Your task to perform on an android device: Open settings on Google Maps Image 0: 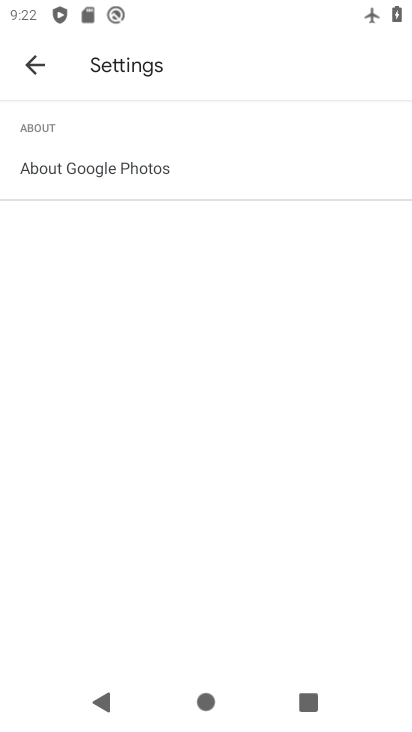
Step 0: press home button
Your task to perform on an android device: Open settings on Google Maps Image 1: 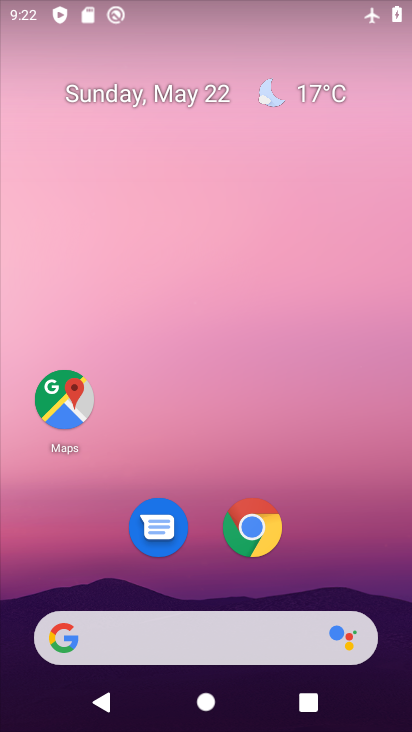
Step 1: click (58, 403)
Your task to perform on an android device: Open settings on Google Maps Image 2: 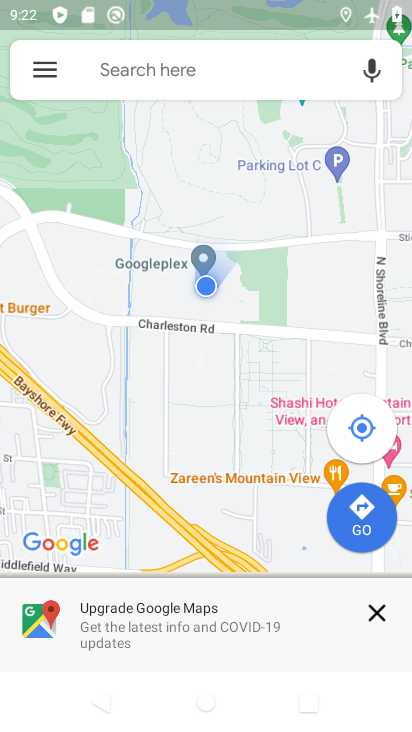
Step 2: click (45, 64)
Your task to perform on an android device: Open settings on Google Maps Image 3: 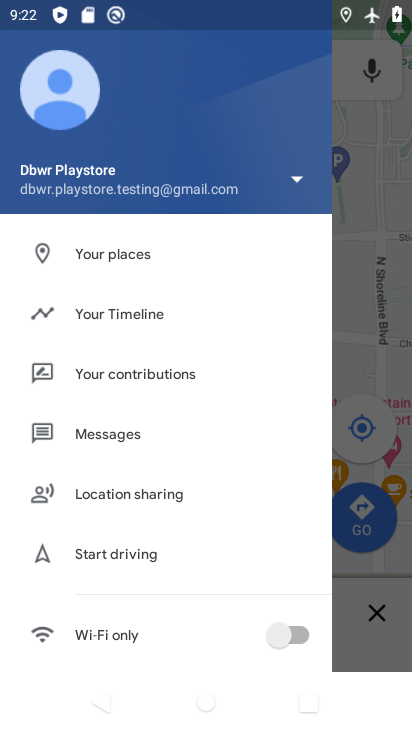
Step 3: drag from (185, 459) to (199, 152)
Your task to perform on an android device: Open settings on Google Maps Image 4: 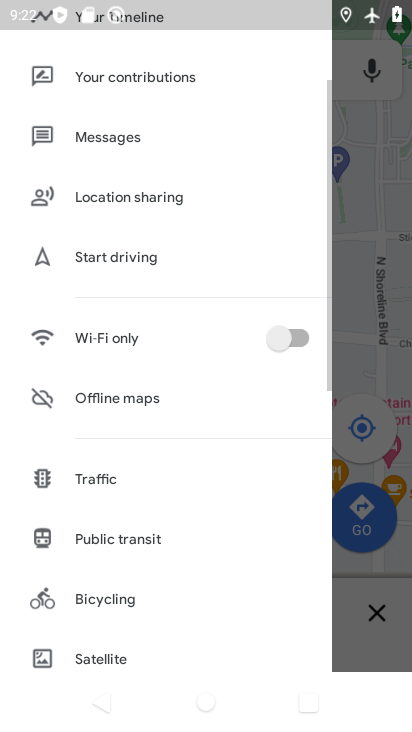
Step 4: drag from (108, 439) to (95, 349)
Your task to perform on an android device: Open settings on Google Maps Image 5: 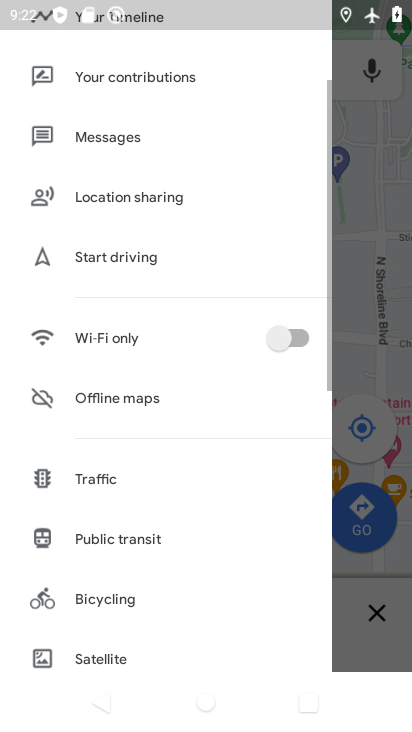
Step 5: drag from (106, 437) to (101, 259)
Your task to perform on an android device: Open settings on Google Maps Image 6: 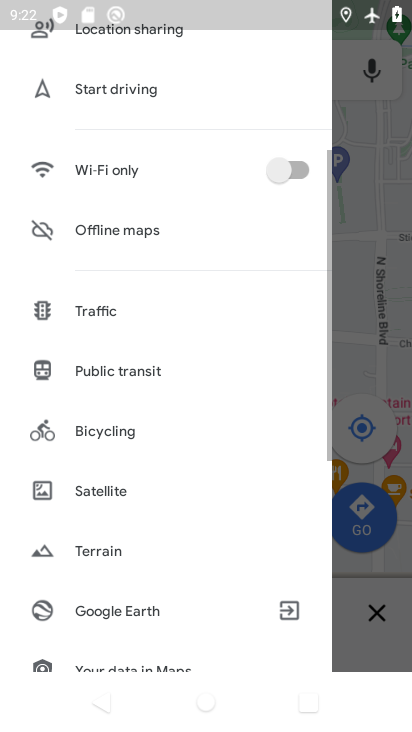
Step 6: drag from (178, 577) to (156, 248)
Your task to perform on an android device: Open settings on Google Maps Image 7: 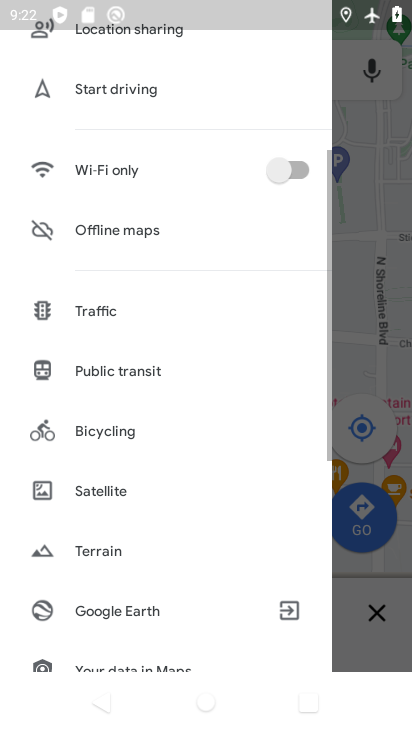
Step 7: drag from (122, 630) to (95, 190)
Your task to perform on an android device: Open settings on Google Maps Image 8: 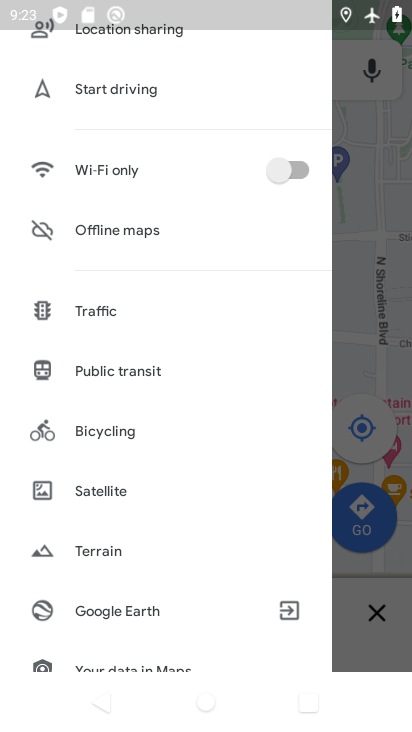
Step 8: drag from (200, 513) to (128, 62)
Your task to perform on an android device: Open settings on Google Maps Image 9: 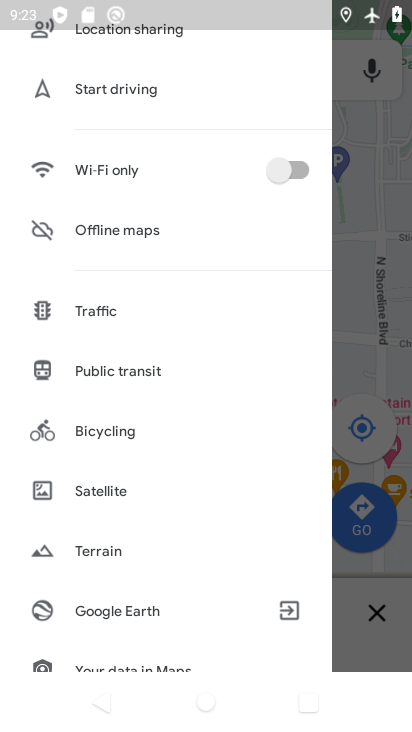
Step 9: drag from (173, 572) to (173, 239)
Your task to perform on an android device: Open settings on Google Maps Image 10: 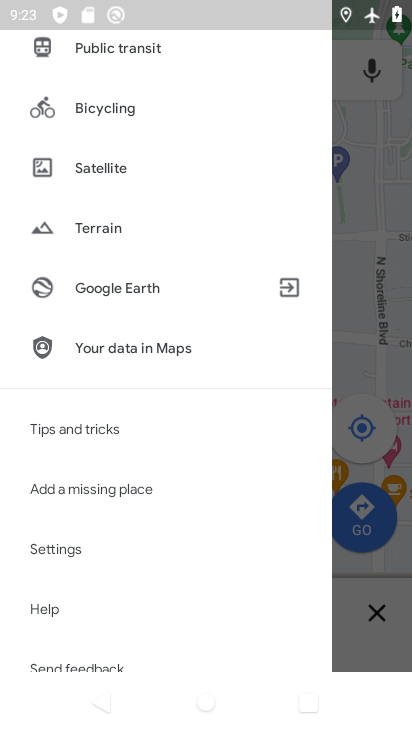
Step 10: click (58, 546)
Your task to perform on an android device: Open settings on Google Maps Image 11: 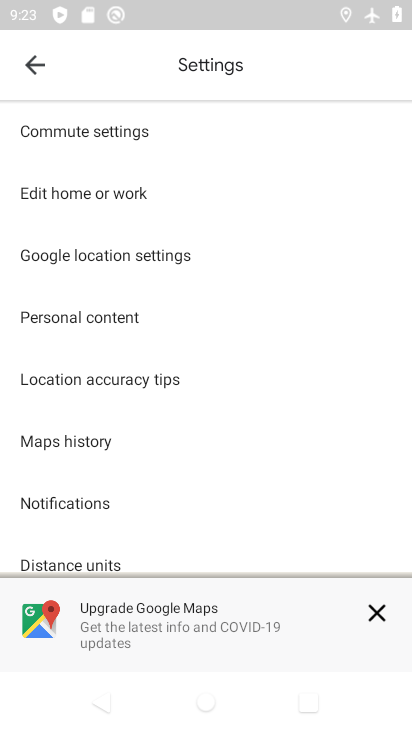
Step 11: task complete